Your task to perform on an android device: delete browsing data in the chrome app Image 0: 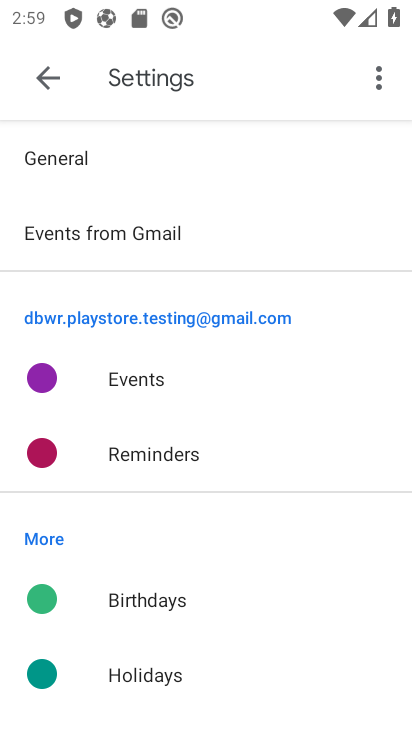
Step 0: press home button
Your task to perform on an android device: delete browsing data in the chrome app Image 1: 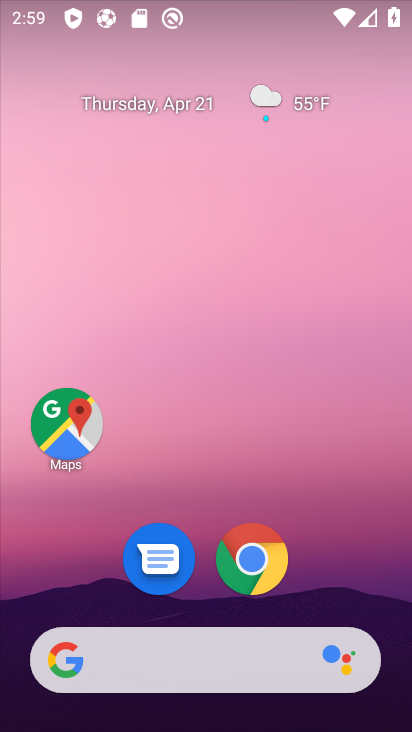
Step 1: drag from (344, 546) to (328, 425)
Your task to perform on an android device: delete browsing data in the chrome app Image 2: 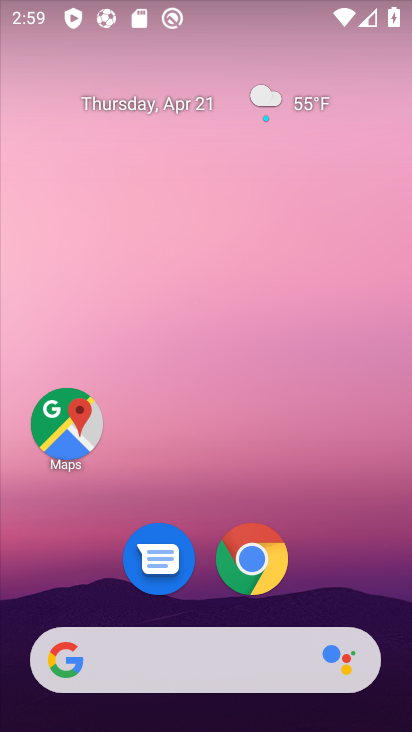
Step 2: click (238, 555)
Your task to perform on an android device: delete browsing data in the chrome app Image 3: 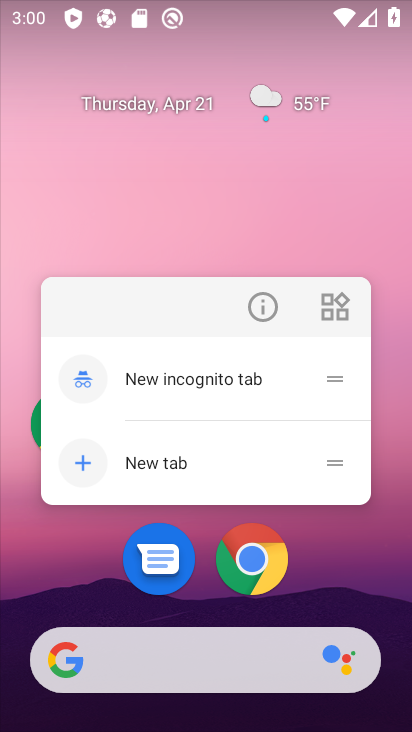
Step 3: click (251, 545)
Your task to perform on an android device: delete browsing data in the chrome app Image 4: 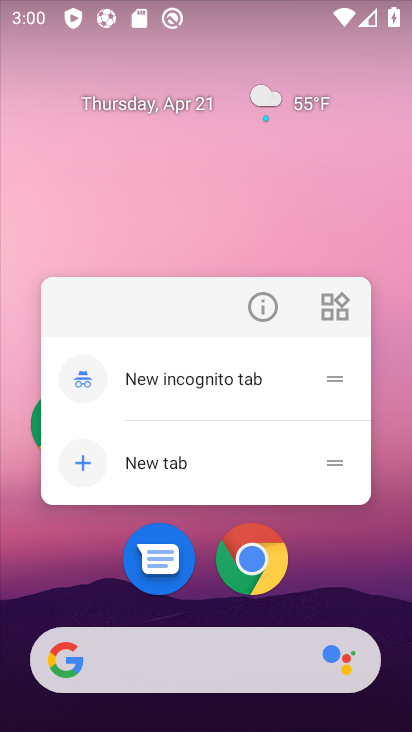
Step 4: click (279, 556)
Your task to perform on an android device: delete browsing data in the chrome app Image 5: 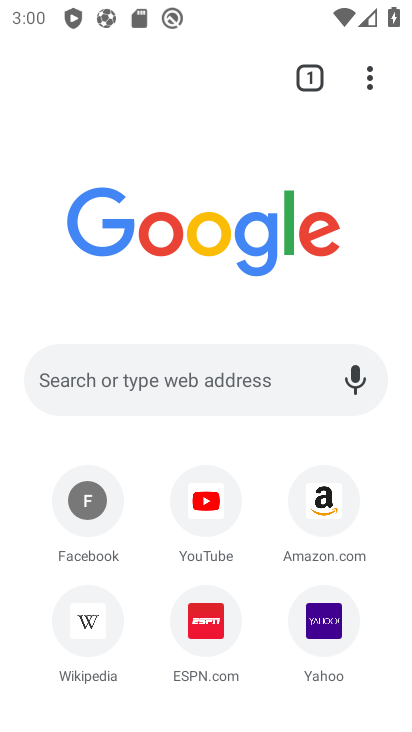
Step 5: click (371, 84)
Your task to perform on an android device: delete browsing data in the chrome app Image 6: 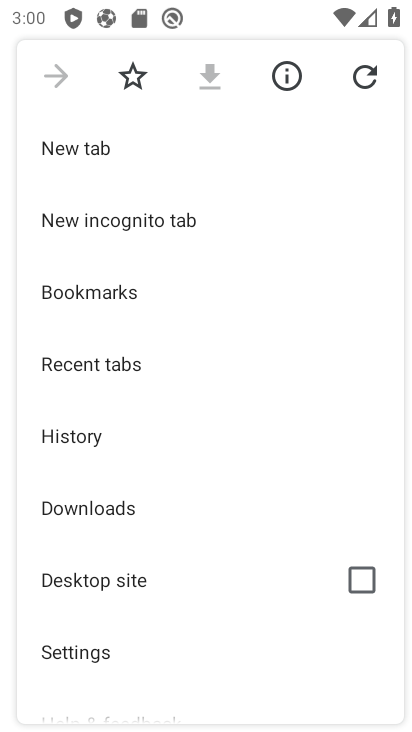
Step 6: drag from (161, 615) to (151, 303)
Your task to perform on an android device: delete browsing data in the chrome app Image 7: 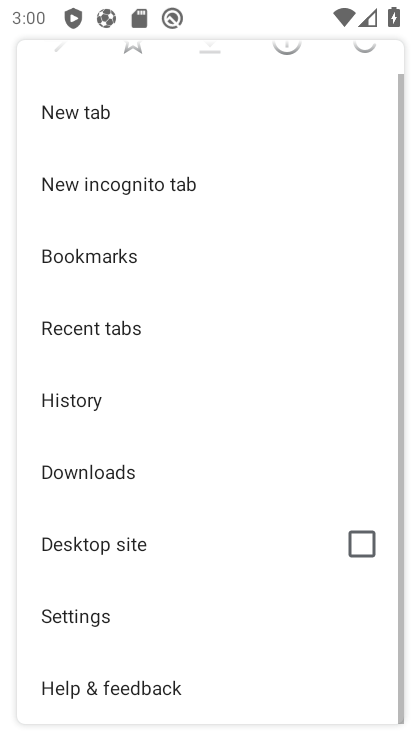
Step 7: click (111, 613)
Your task to perform on an android device: delete browsing data in the chrome app Image 8: 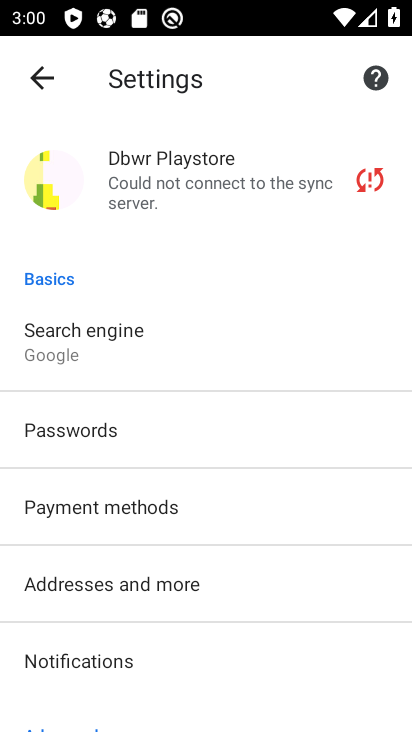
Step 8: drag from (280, 609) to (240, 175)
Your task to perform on an android device: delete browsing data in the chrome app Image 9: 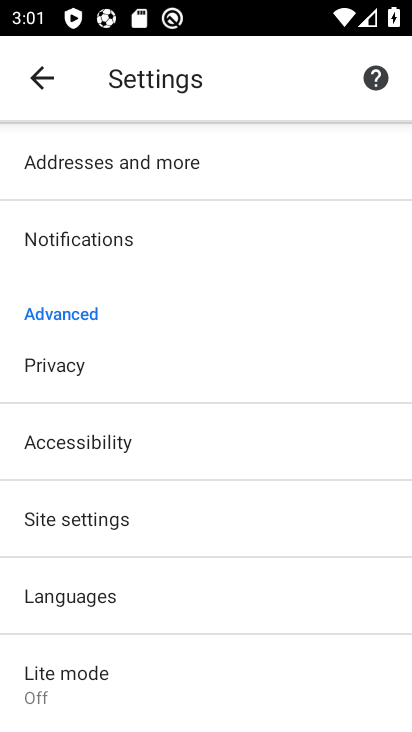
Step 9: click (85, 357)
Your task to perform on an android device: delete browsing data in the chrome app Image 10: 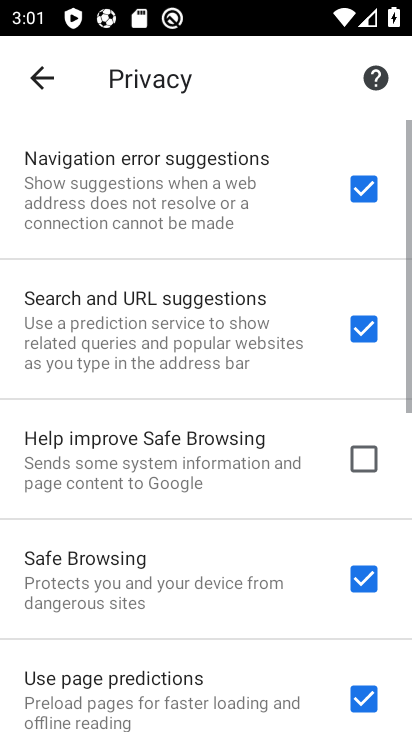
Step 10: drag from (199, 604) to (155, 50)
Your task to perform on an android device: delete browsing data in the chrome app Image 11: 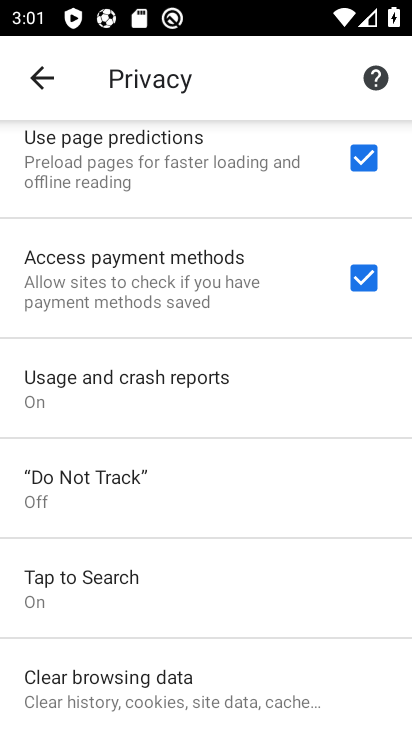
Step 11: click (149, 710)
Your task to perform on an android device: delete browsing data in the chrome app Image 12: 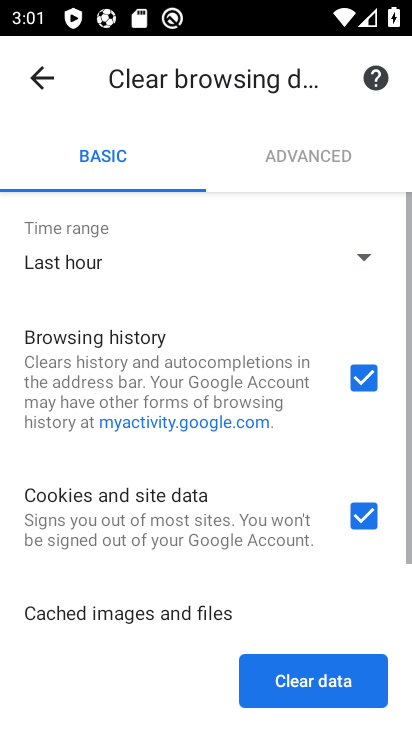
Step 12: click (351, 236)
Your task to perform on an android device: delete browsing data in the chrome app Image 13: 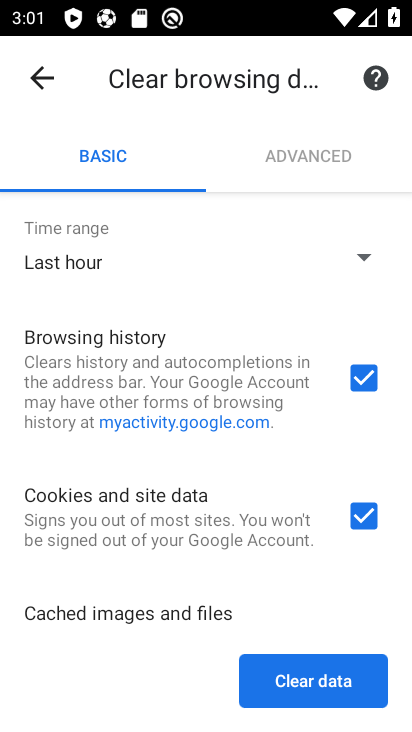
Step 13: click (117, 256)
Your task to perform on an android device: delete browsing data in the chrome app Image 14: 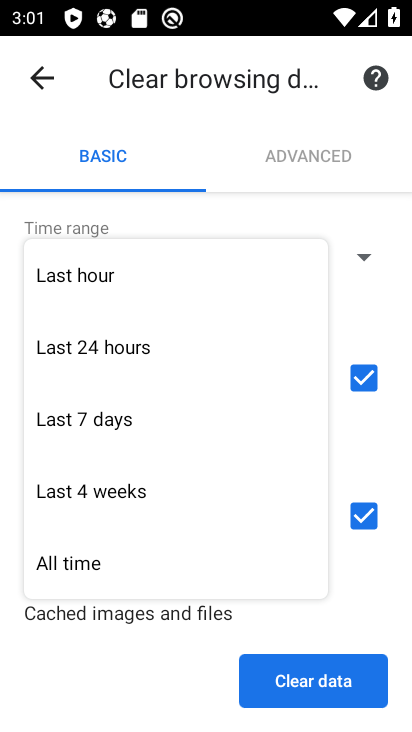
Step 14: click (97, 553)
Your task to perform on an android device: delete browsing data in the chrome app Image 15: 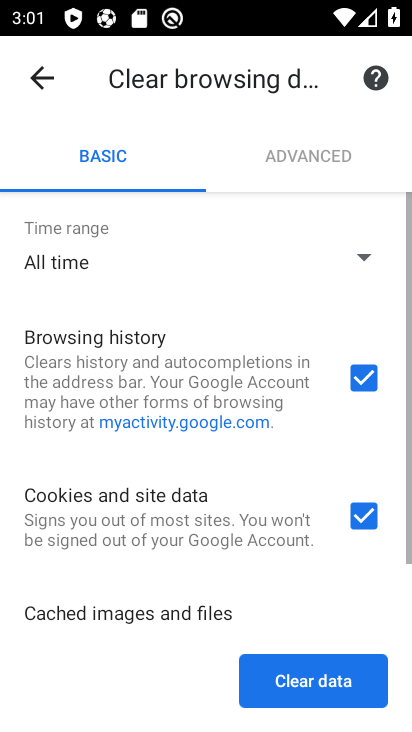
Step 15: click (304, 675)
Your task to perform on an android device: delete browsing data in the chrome app Image 16: 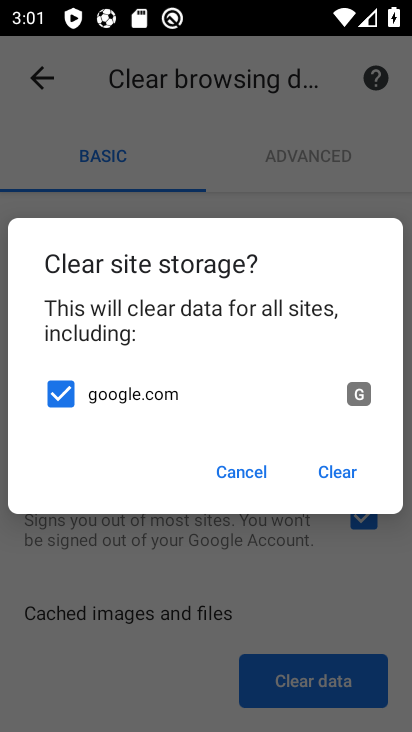
Step 16: click (342, 470)
Your task to perform on an android device: delete browsing data in the chrome app Image 17: 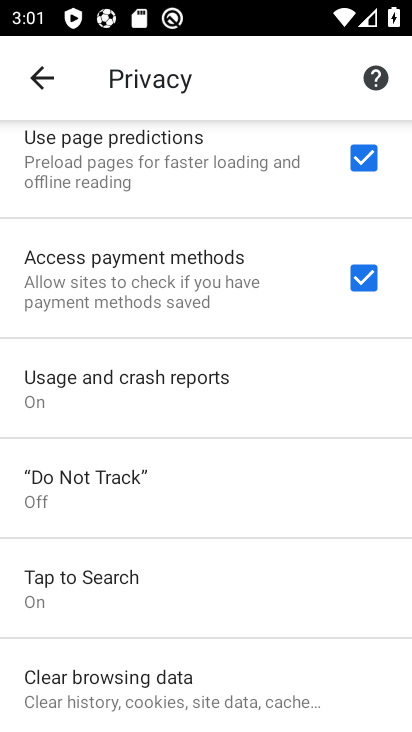
Step 17: task complete